Your task to perform on an android device: Open display settings Image 0: 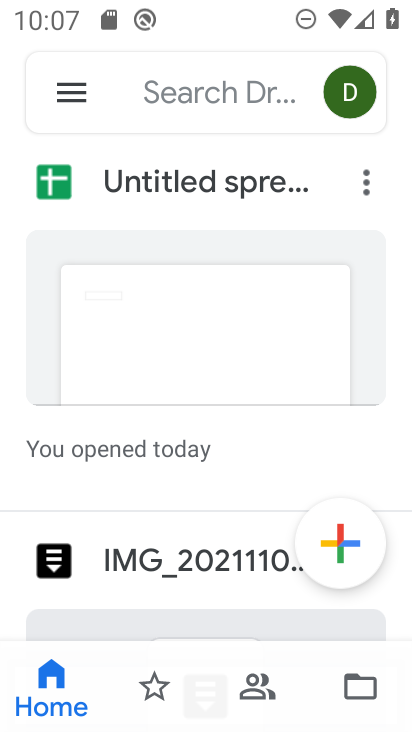
Step 0: press home button
Your task to perform on an android device: Open display settings Image 1: 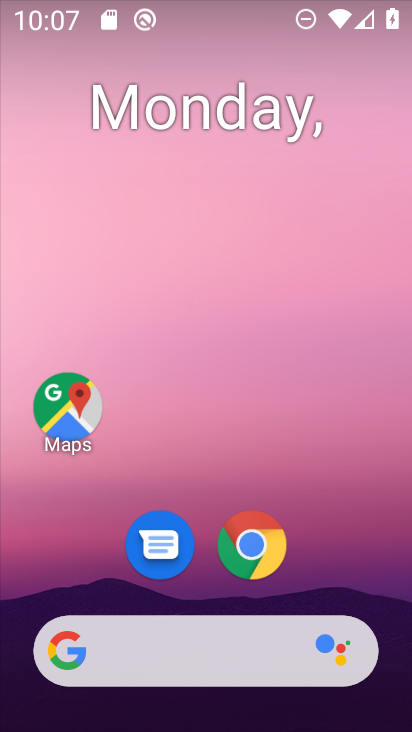
Step 1: drag from (58, 493) to (254, 239)
Your task to perform on an android device: Open display settings Image 2: 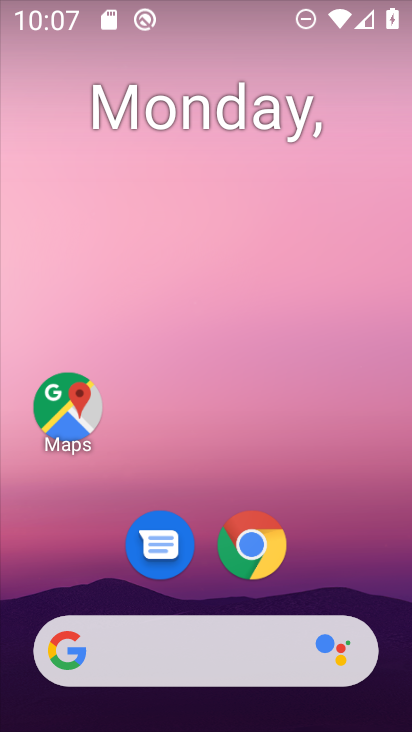
Step 2: drag from (7, 654) to (333, 188)
Your task to perform on an android device: Open display settings Image 3: 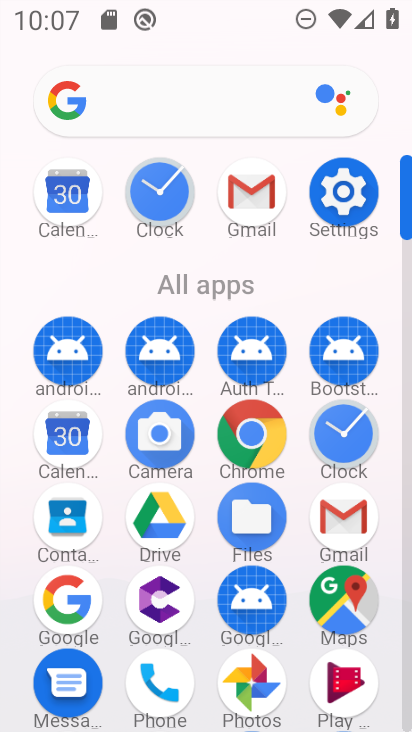
Step 3: click (345, 187)
Your task to perform on an android device: Open display settings Image 4: 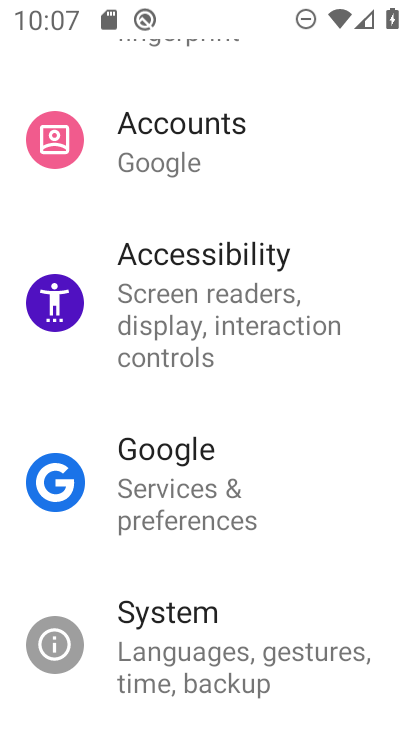
Step 4: drag from (279, 178) to (246, 460)
Your task to perform on an android device: Open display settings Image 5: 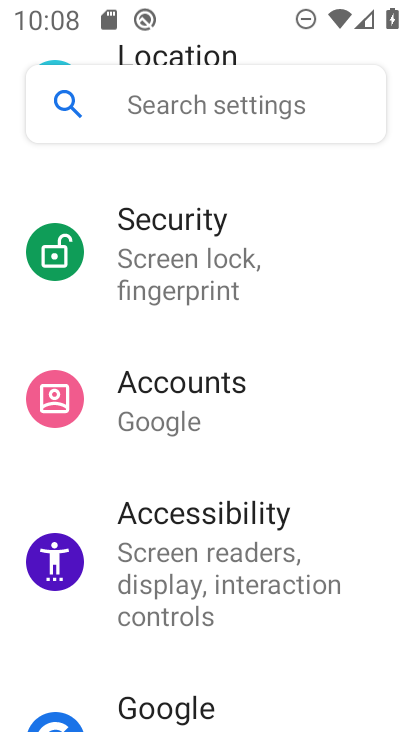
Step 5: drag from (163, 234) to (165, 551)
Your task to perform on an android device: Open display settings Image 6: 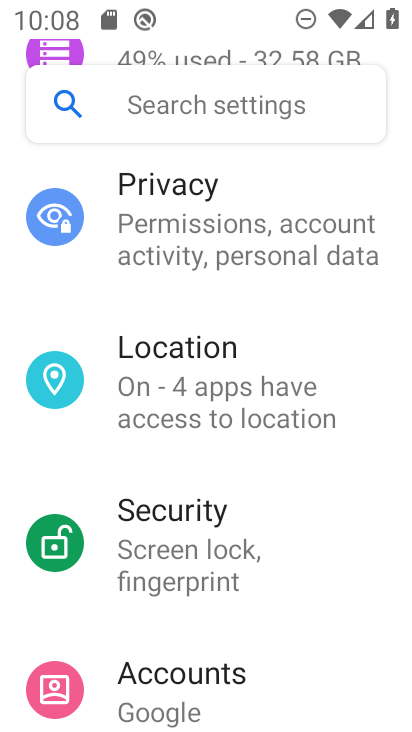
Step 6: drag from (193, 251) to (217, 523)
Your task to perform on an android device: Open display settings Image 7: 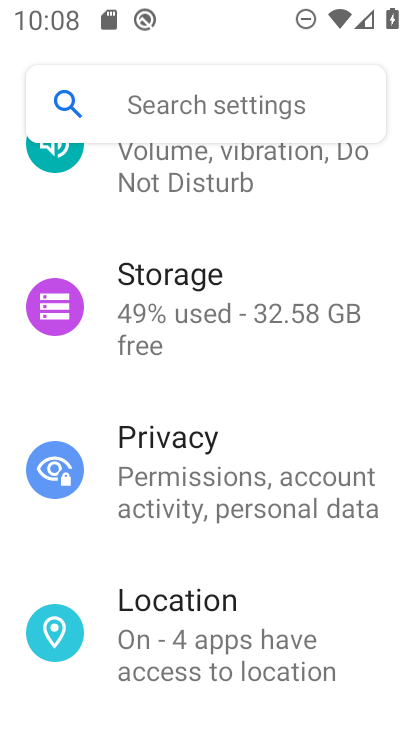
Step 7: drag from (270, 248) to (282, 552)
Your task to perform on an android device: Open display settings Image 8: 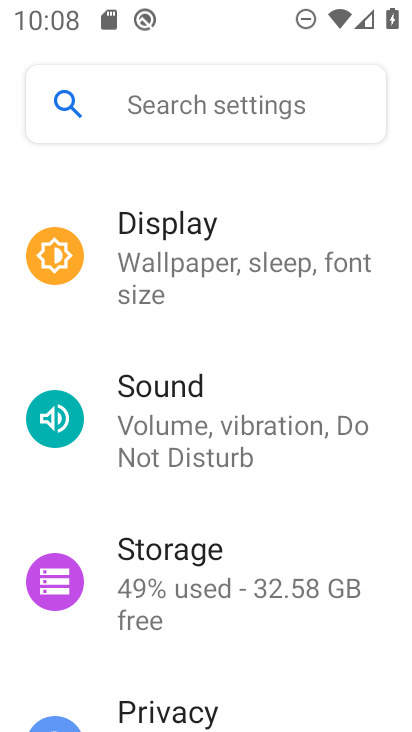
Step 8: click (276, 297)
Your task to perform on an android device: Open display settings Image 9: 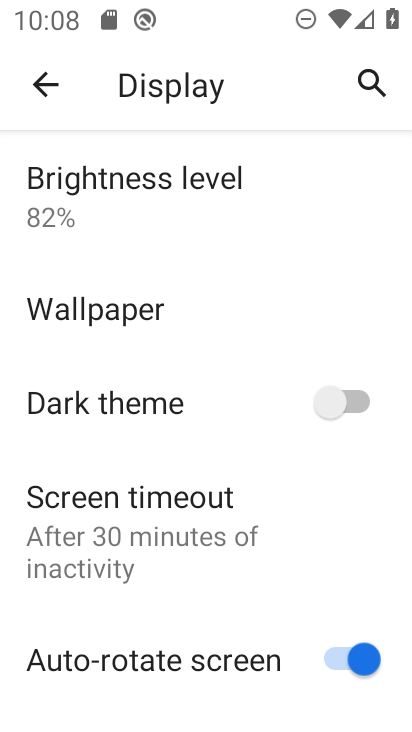
Step 9: task complete